Your task to perform on an android device: How big is a tiger? Image 0: 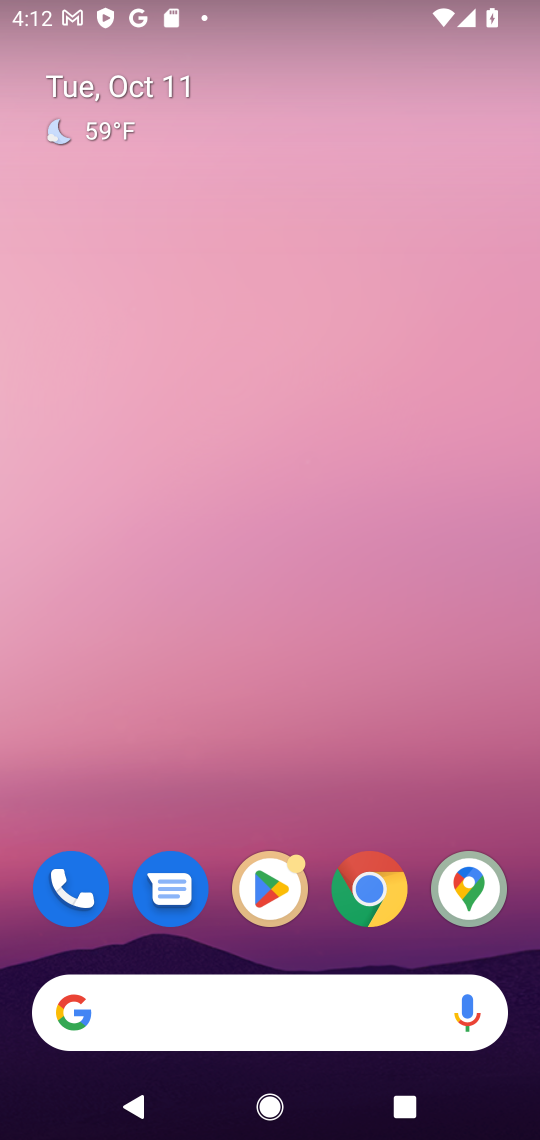
Step 0: drag from (357, 730) to (336, 229)
Your task to perform on an android device: How big is a tiger? Image 1: 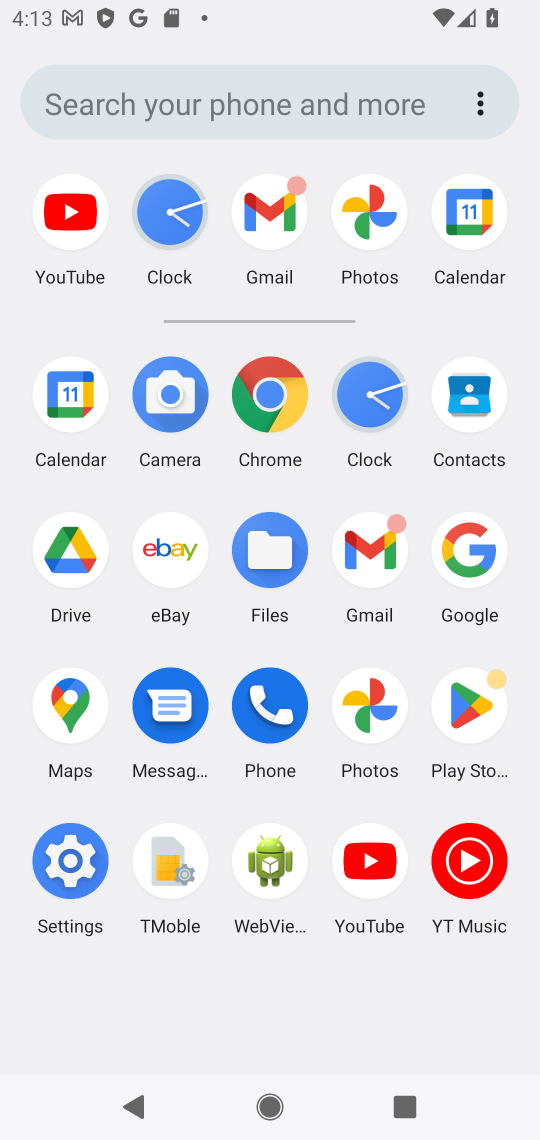
Step 1: click (462, 545)
Your task to perform on an android device: How big is a tiger? Image 2: 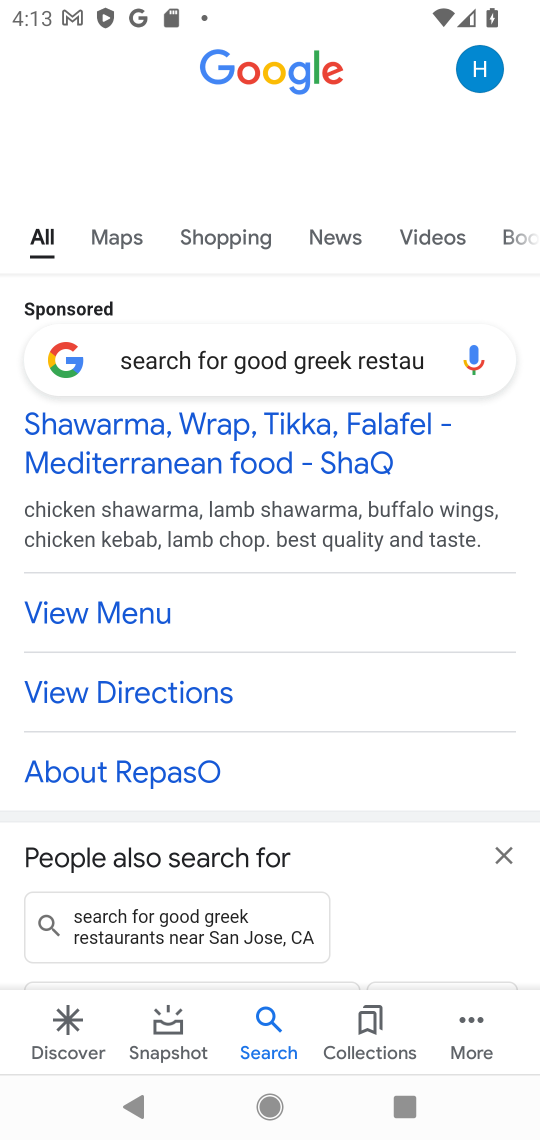
Step 2: click (223, 353)
Your task to perform on an android device: How big is a tiger? Image 3: 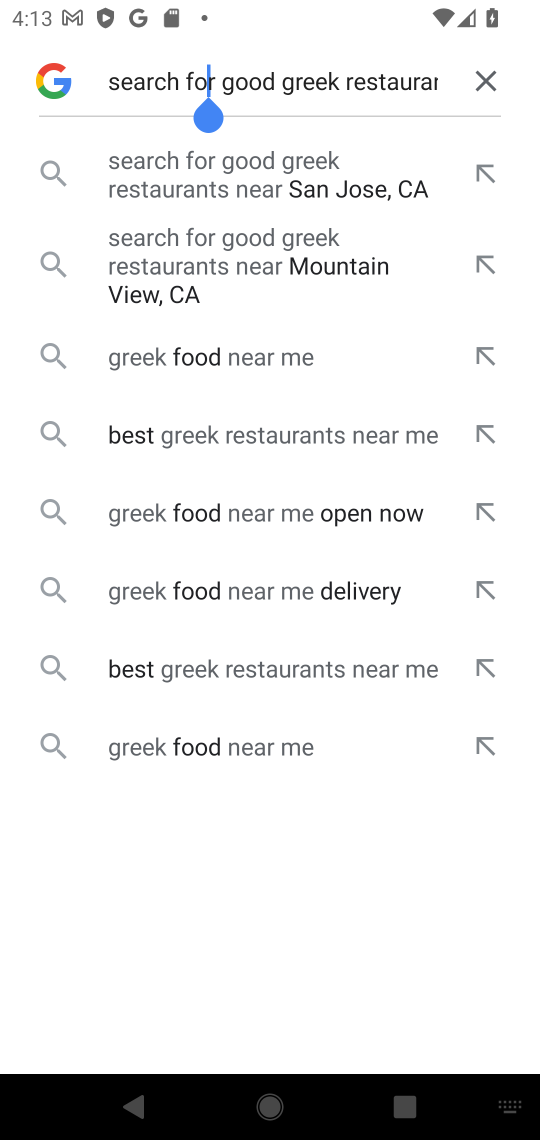
Step 3: click (496, 75)
Your task to perform on an android device: How big is a tiger? Image 4: 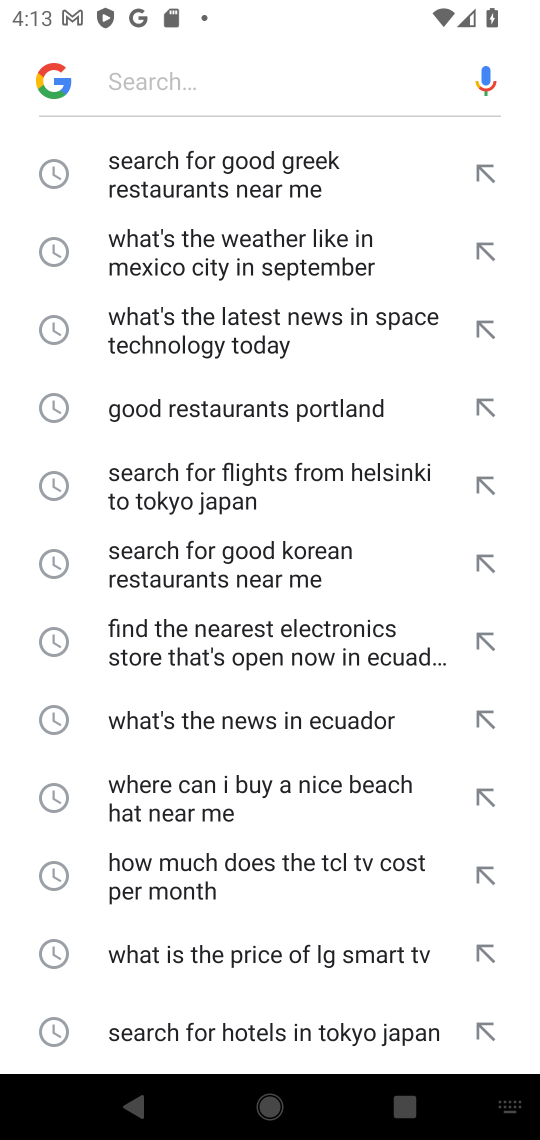
Step 4: click (181, 86)
Your task to perform on an android device: How big is a tiger? Image 5: 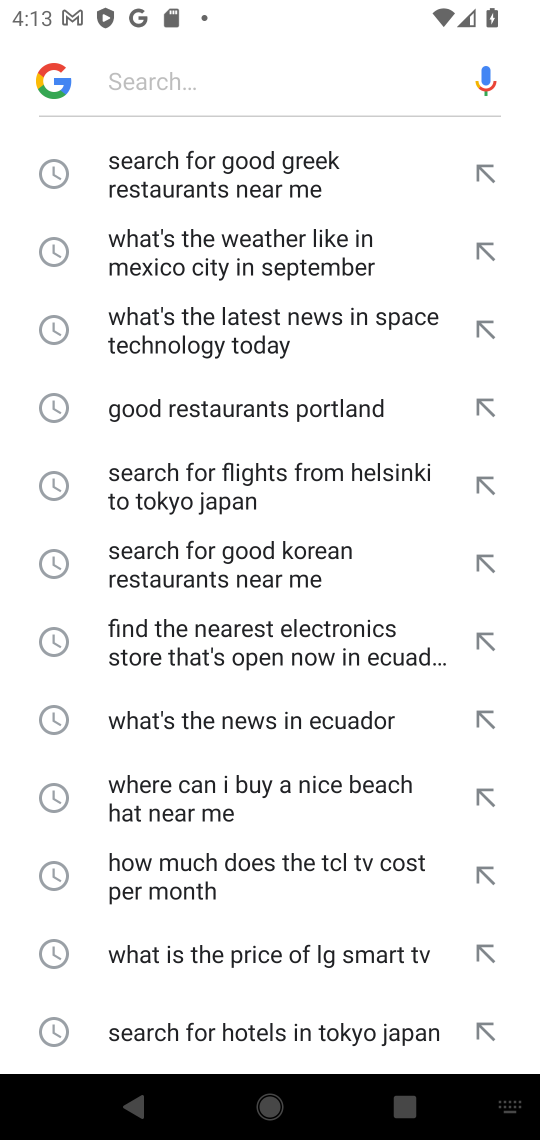
Step 5: type "How big is a tiger? "
Your task to perform on an android device: How big is a tiger? Image 6: 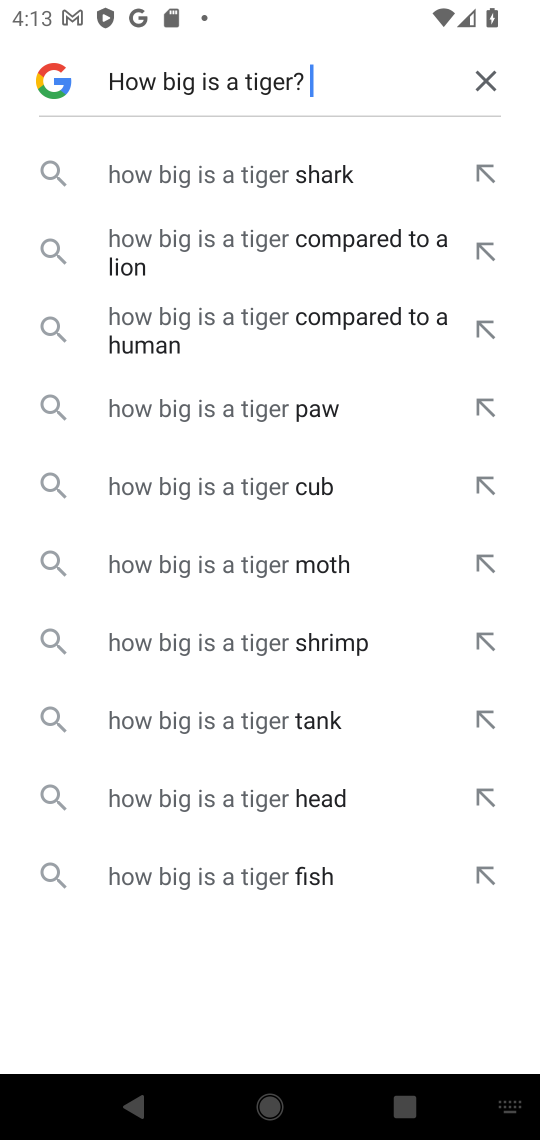
Step 6: click (220, 168)
Your task to perform on an android device: How big is a tiger? Image 7: 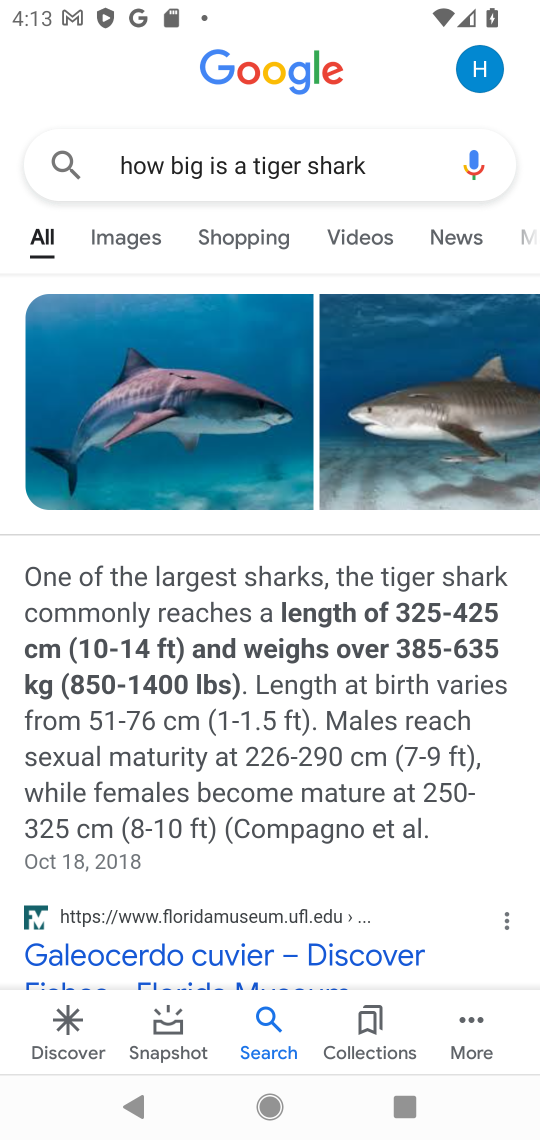
Step 7: click (370, 159)
Your task to perform on an android device: How big is a tiger? Image 8: 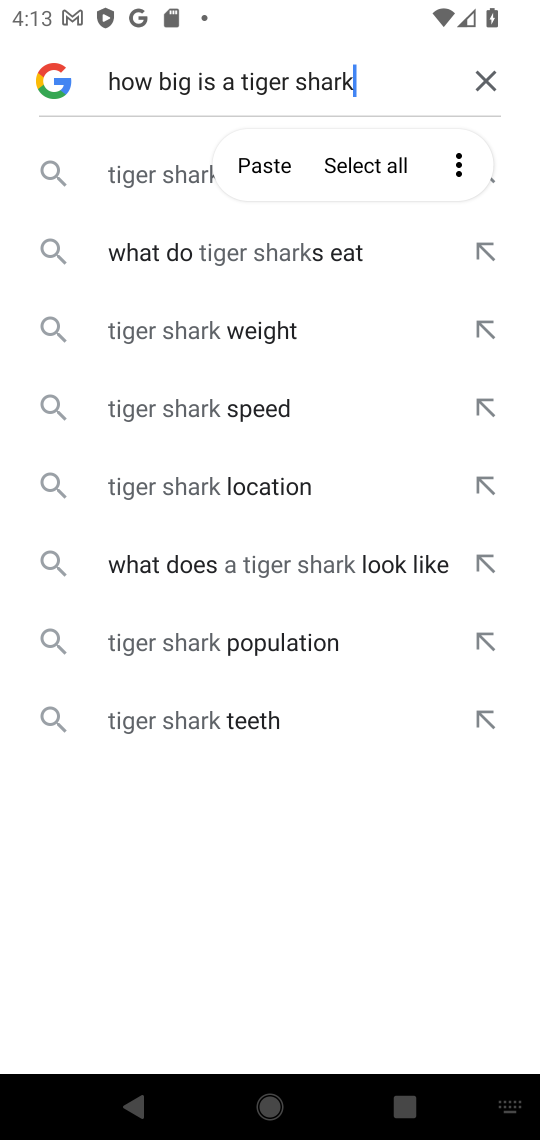
Step 8: click (470, 66)
Your task to perform on an android device: How big is a tiger? Image 9: 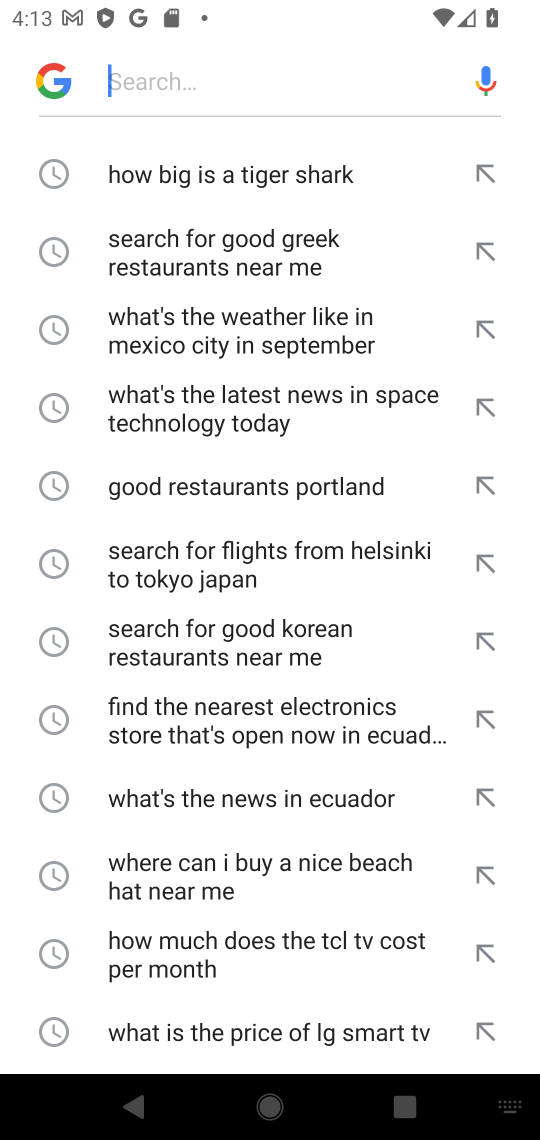
Step 9: click (237, 87)
Your task to perform on an android device: How big is a tiger? Image 10: 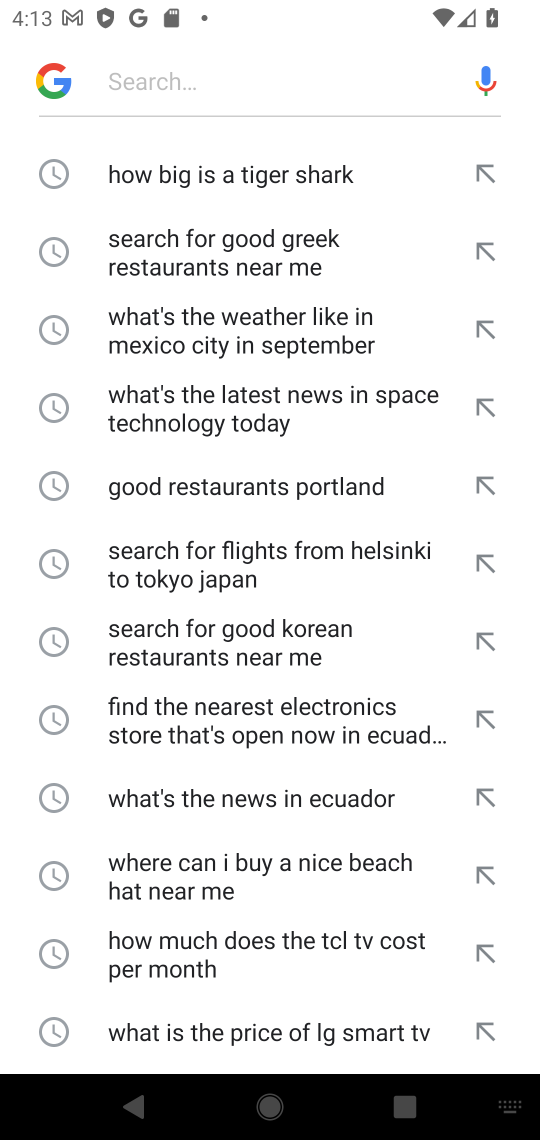
Step 10: type "How big is a tiger? "
Your task to perform on an android device: How big is a tiger? Image 11: 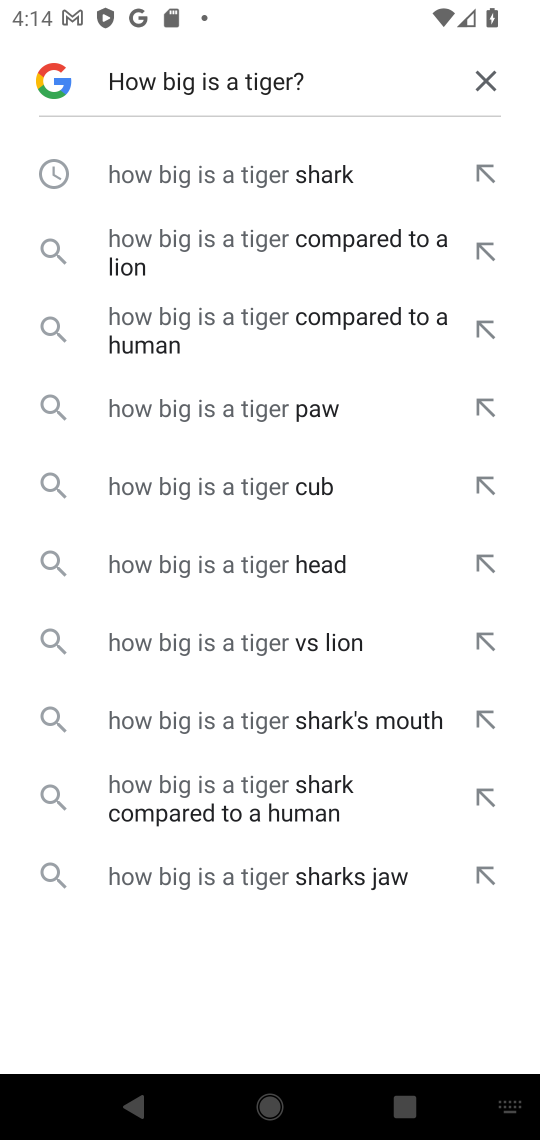
Step 11: click (252, 185)
Your task to perform on an android device: How big is a tiger? Image 12: 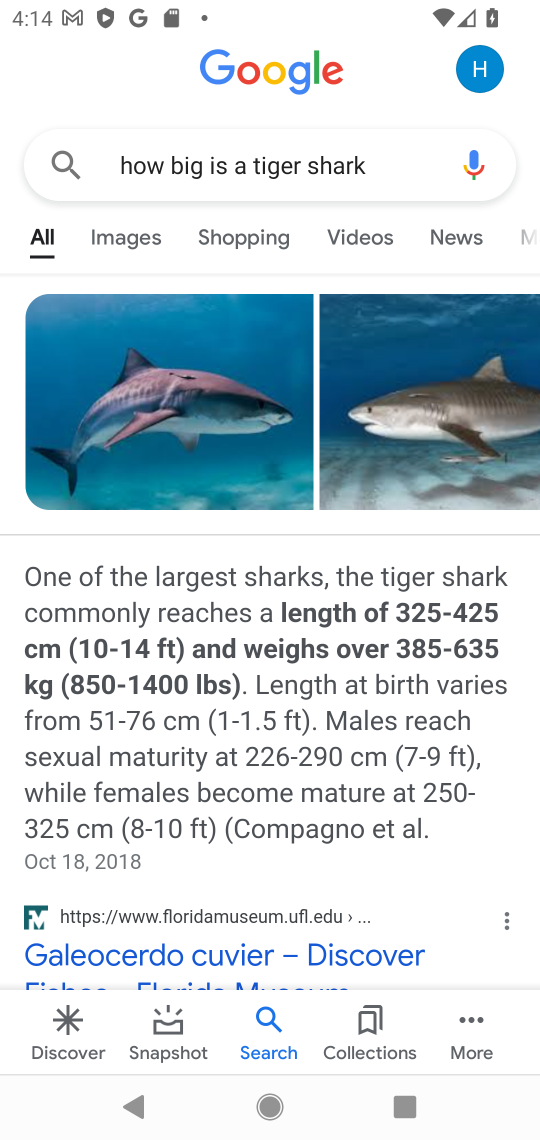
Step 12: drag from (203, 936) to (262, 512)
Your task to perform on an android device: How big is a tiger? Image 13: 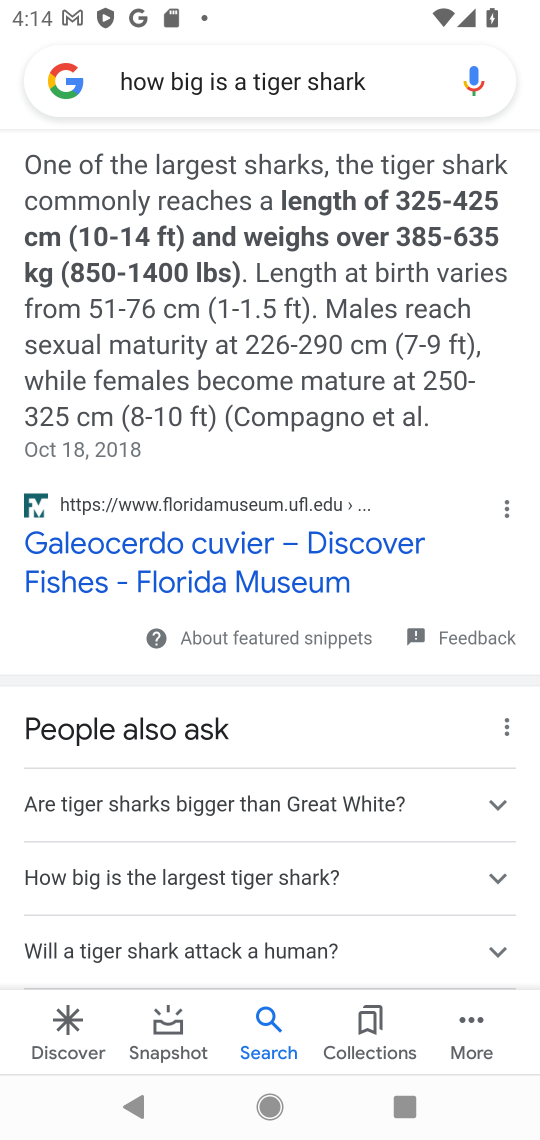
Step 13: drag from (214, 281) to (118, 928)
Your task to perform on an android device: How big is a tiger? Image 14: 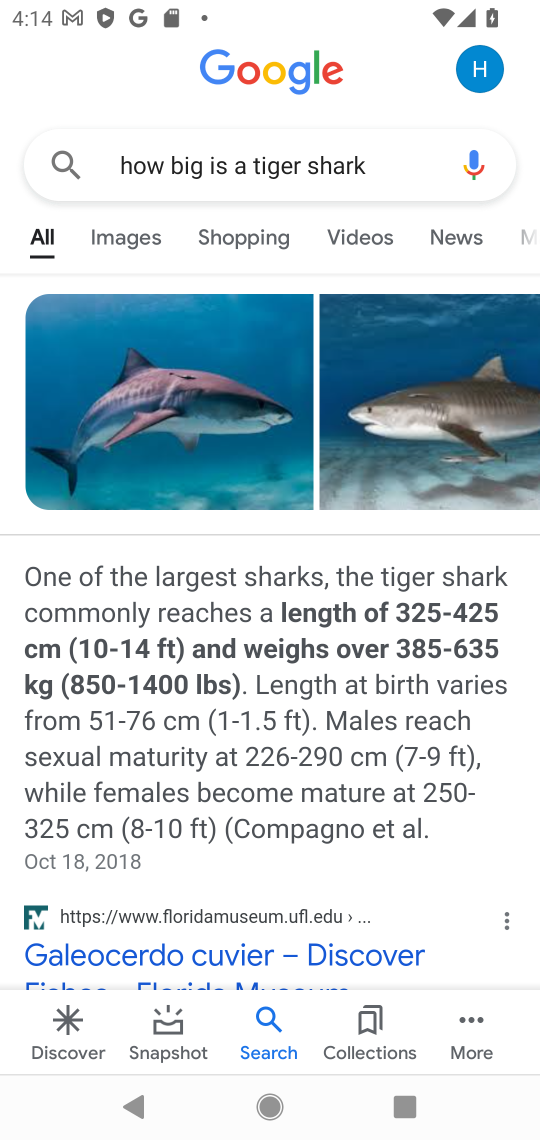
Step 14: click (320, 173)
Your task to perform on an android device: How big is a tiger? Image 15: 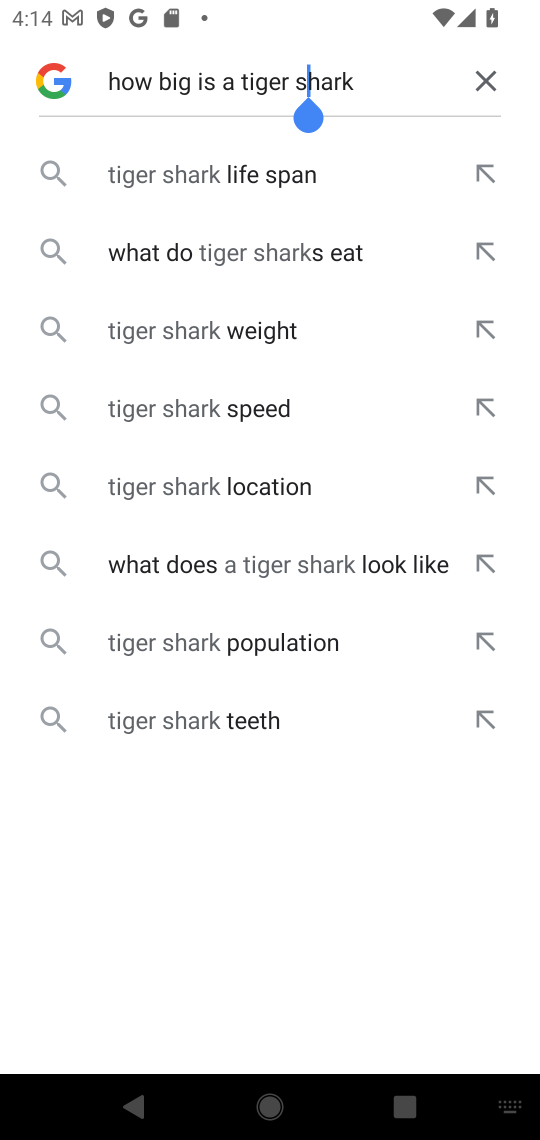
Step 15: task complete